Your task to perform on an android device: Go to ESPN.com Image 0: 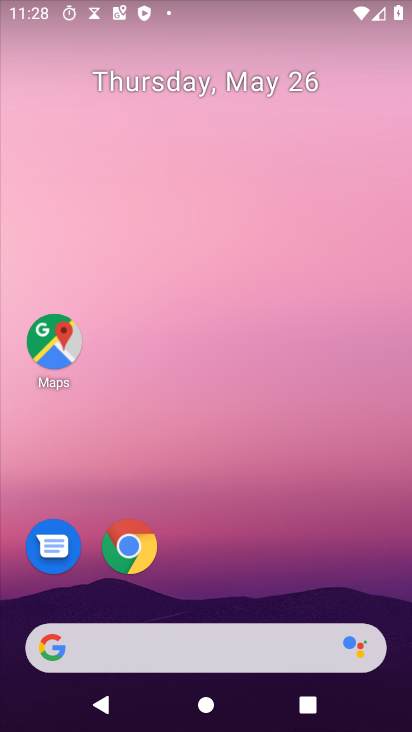
Step 0: drag from (326, 573) to (330, 159)
Your task to perform on an android device: Go to ESPN.com Image 1: 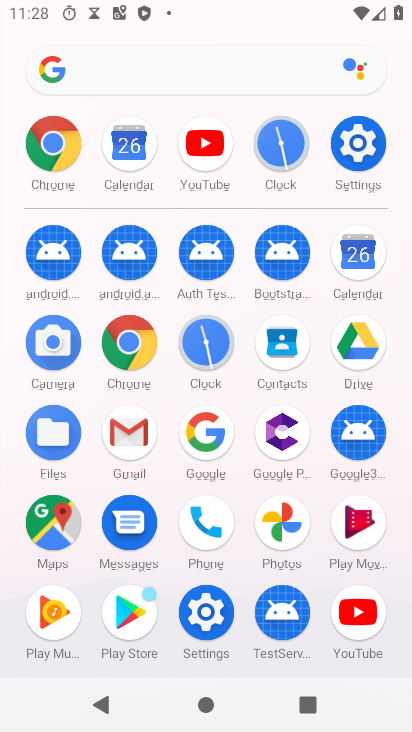
Step 1: click (120, 356)
Your task to perform on an android device: Go to ESPN.com Image 2: 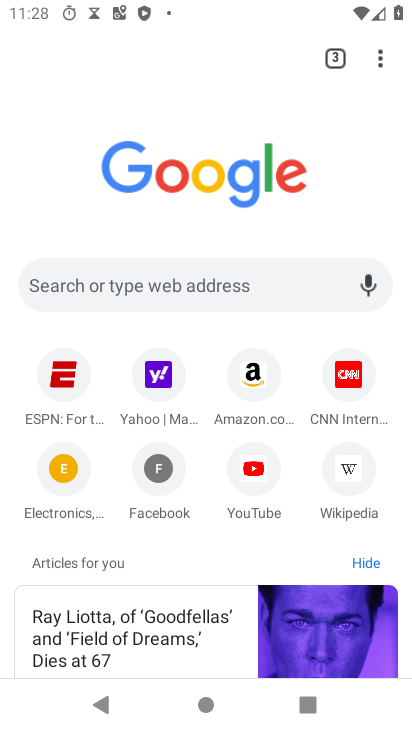
Step 2: click (178, 294)
Your task to perform on an android device: Go to ESPN.com Image 3: 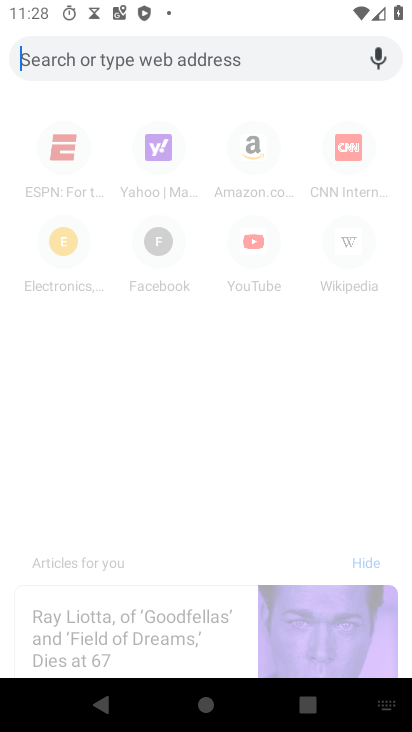
Step 3: type "espn.com"
Your task to perform on an android device: Go to ESPN.com Image 4: 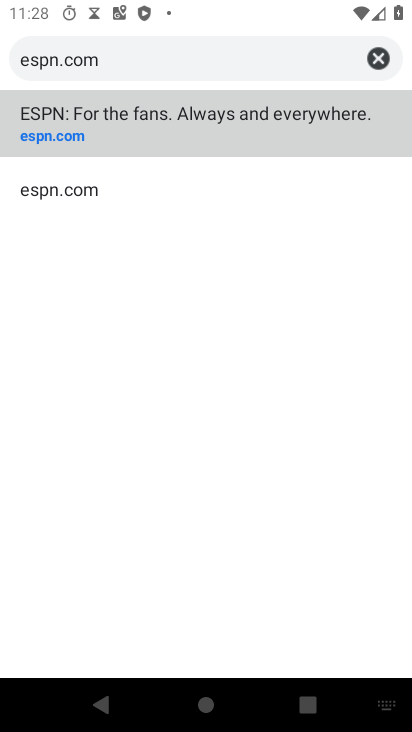
Step 4: click (179, 133)
Your task to perform on an android device: Go to ESPN.com Image 5: 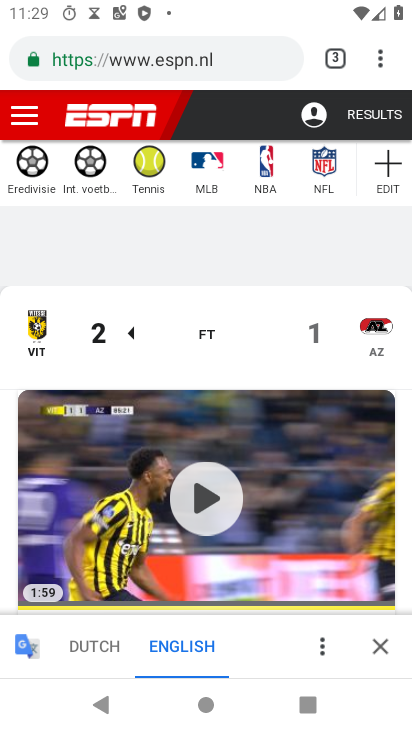
Step 5: task complete